Your task to perform on an android device: toggle notifications settings in the gmail app Image 0: 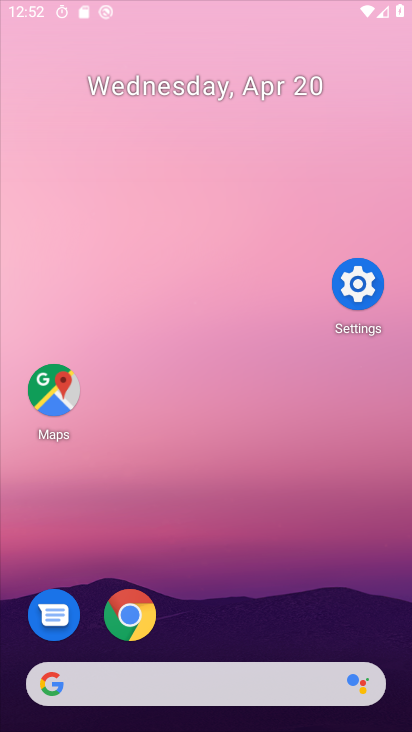
Step 0: click (117, 29)
Your task to perform on an android device: toggle notifications settings in the gmail app Image 1: 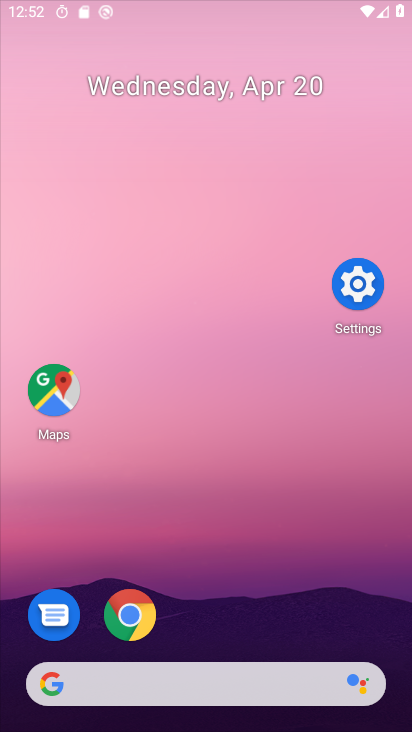
Step 1: drag from (238, 495) to (318, 88)
Your task to perform on an android device: toggle notifications settings in the gmail app Image 2: 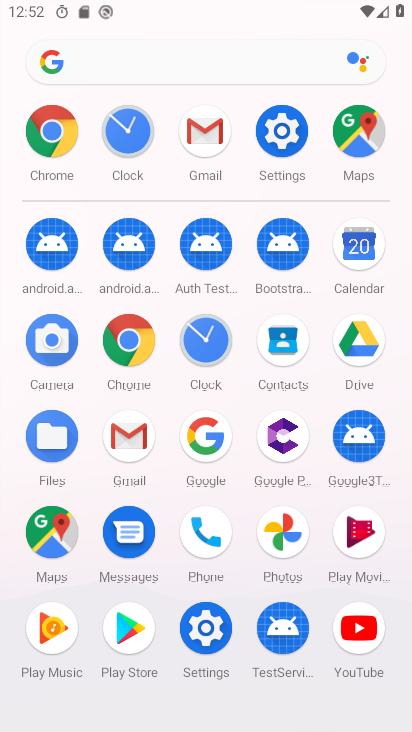
Step 2: click (135, 445)
Your task to perform on an android device: toggle notifications settings in the gmail app Image 3: 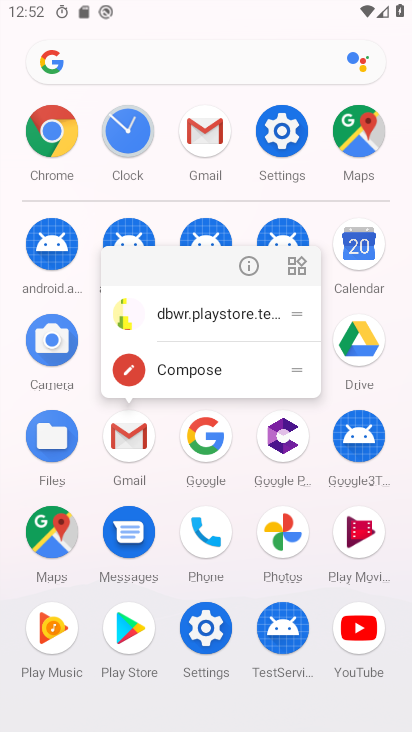
Step 3: click (252, 273)
Your task to perform on an android device: toggle notifications settings in the gmail app Image 4: 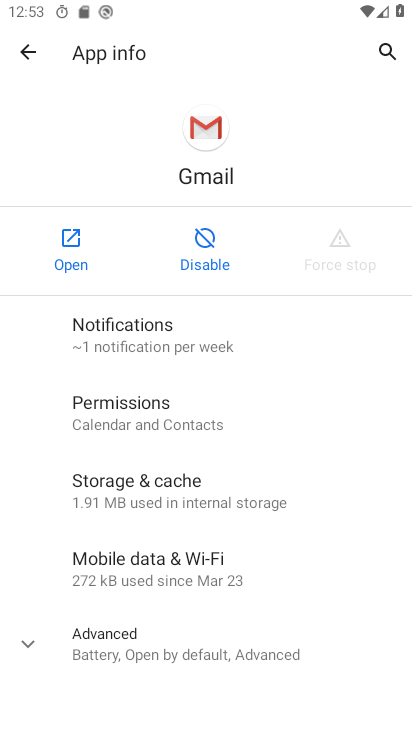
Step 4: click (71, 227)
Your task to perform on an android device: toggle notifications settings in the gmail app Image 5: 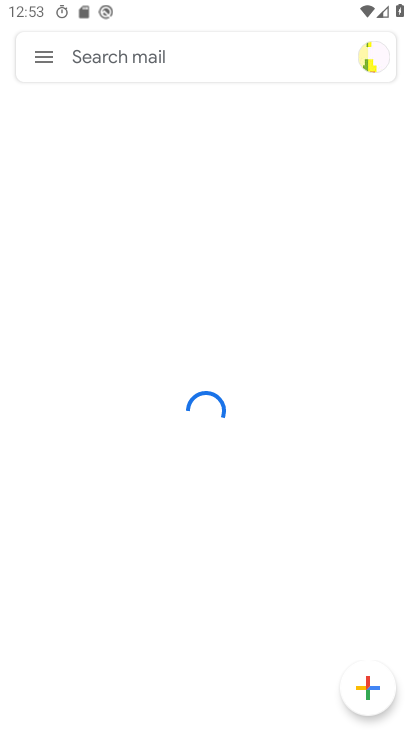
Step 5: drag from (208, 492) to (272, 204)
Your task to perform on an android device: toggle notifications settings in the gmail app Image 6: 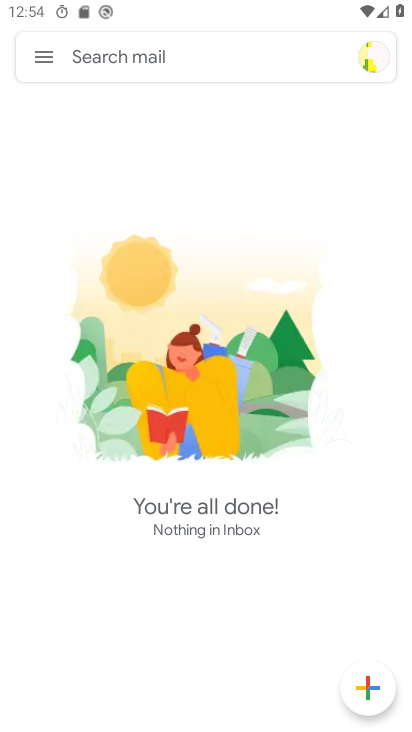
Step 6: drag from (187, 629) to (227, 394)
Your task to perform on an android device: toggle notifications settings in the gmail app Image 7: 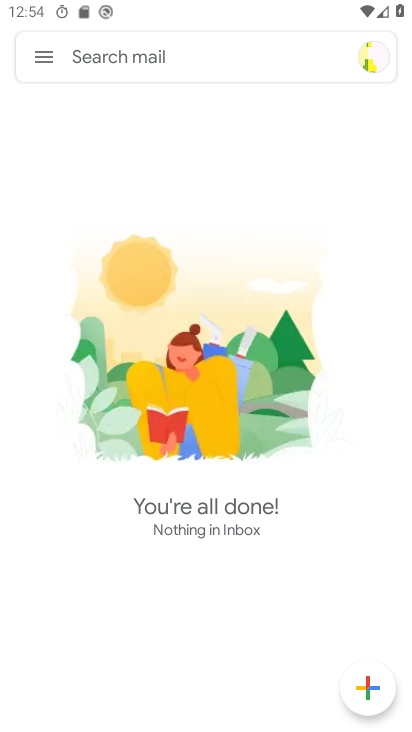
Step 7: click (45, 47)
Your task to perform on an android device: toggle notifications settings in the gmail app Image 8: 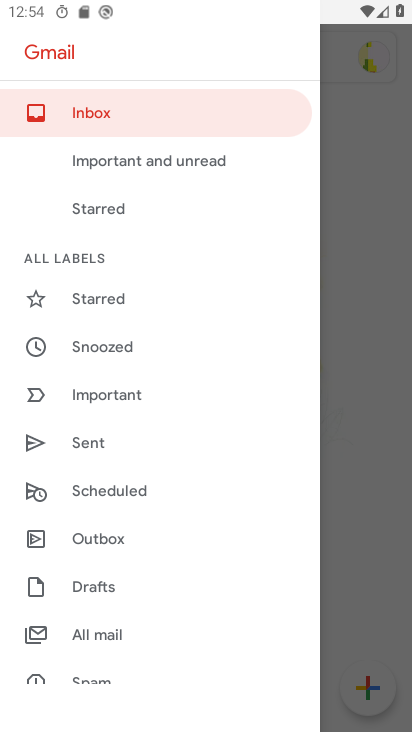
Step 8: drag from (101, 616) to (194, 106)
Your task to perform on an android device: toggle notifications settings in the gmail app Image 9: 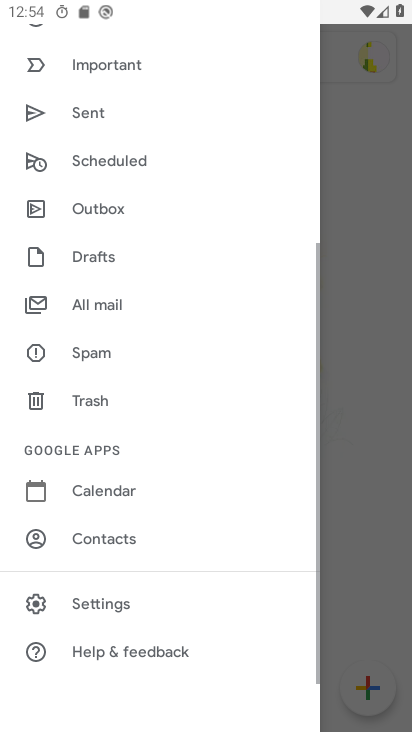
Step 9: click (118, 615)
Your task to perform on an android device: toggle notifications settings in the gmail app Image 10: 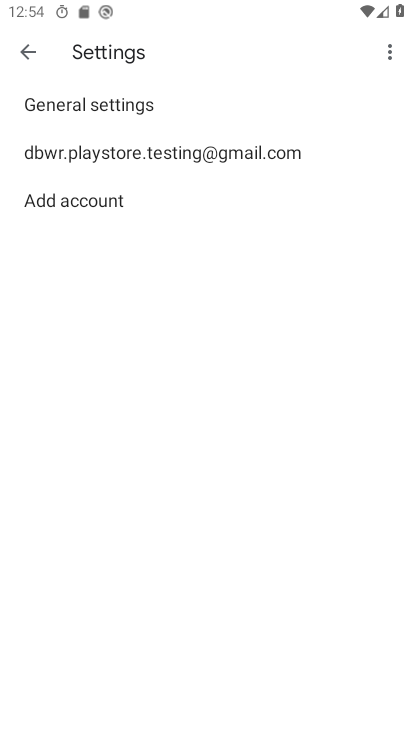
Step 10: click (170, 150)
Your task to perform on an android device: toggle notifications settings in the gmail app Image 11: 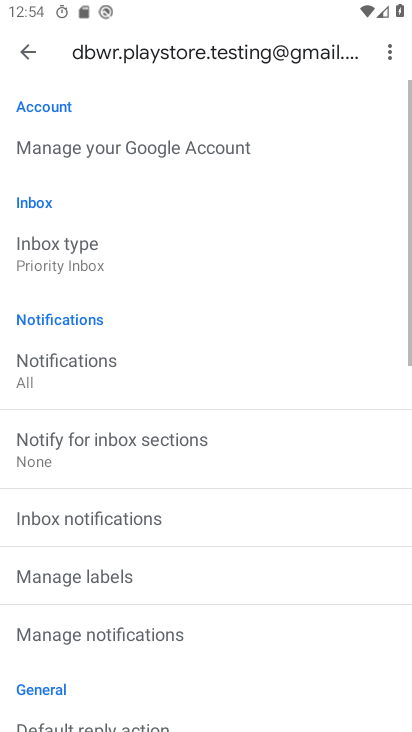
Step 11: click (122, 645)
Your task to perform on an android device: toggle notifications settings in the gmail app Image 12: 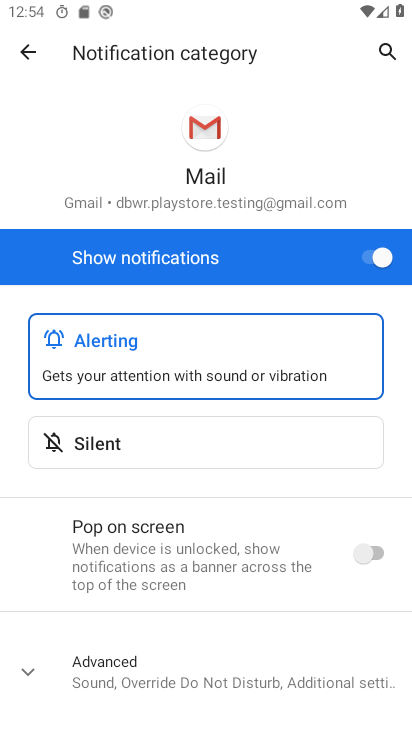
Step 12: click (372, 253)
Your task to perform on an android device: toggle notifications settings in the gmail app Image 13: 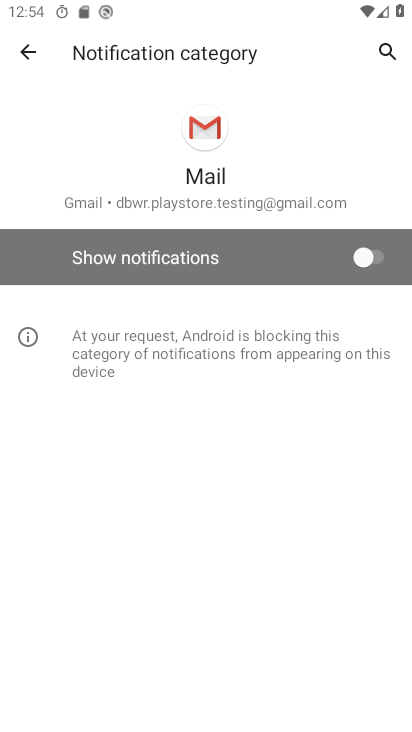
Step 13: task complete